Your task to perform on an android device: Open the calendar app, open the side menu, and click the "Day" option Image 0: 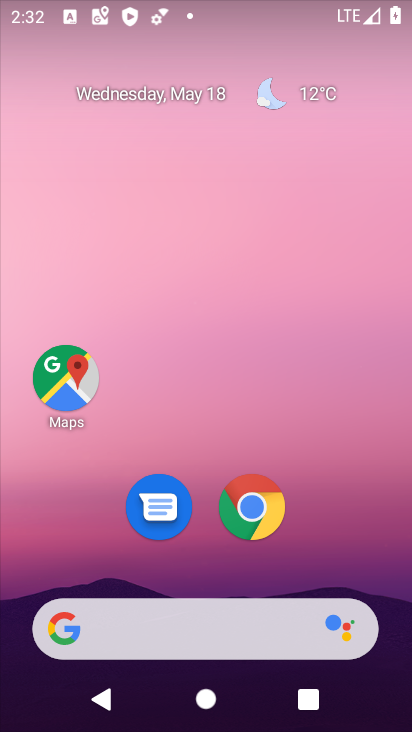
Step 0: click (66, 380)
Your task to perform on an android device: Open the calendar app, open the side menu, and click the "Day" option Image 1: 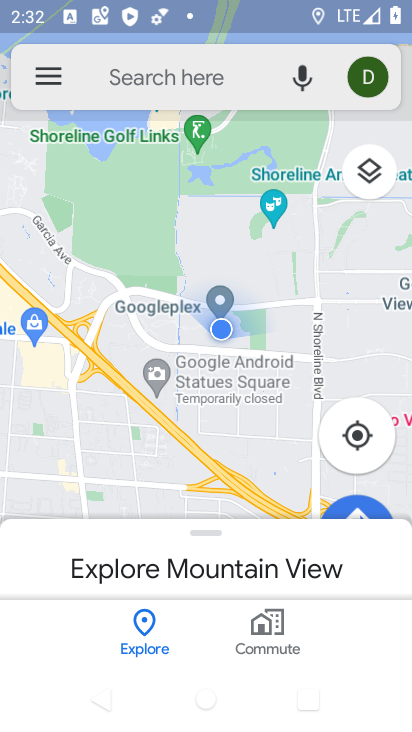
Step 1: press home button
Your task to perform on an android device: Open the calendar app, open the side menu, and click the "Day" option Image 2: 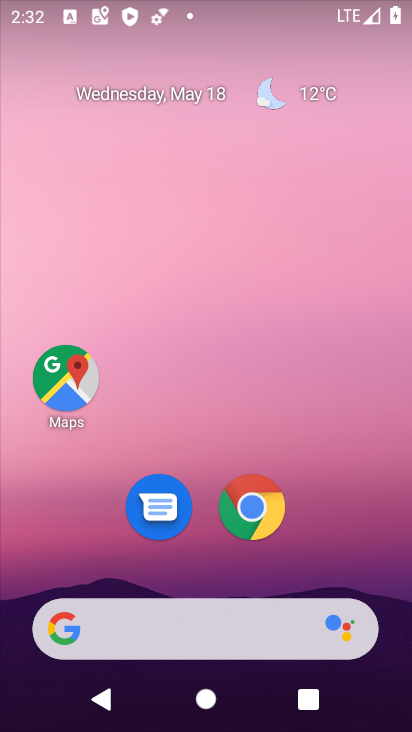
Step 2: drag from (375, 546) to (364, 93)
Your task to perform on an android device: Open the calendar app, open the side menu, and click the "Day" option Image 3: 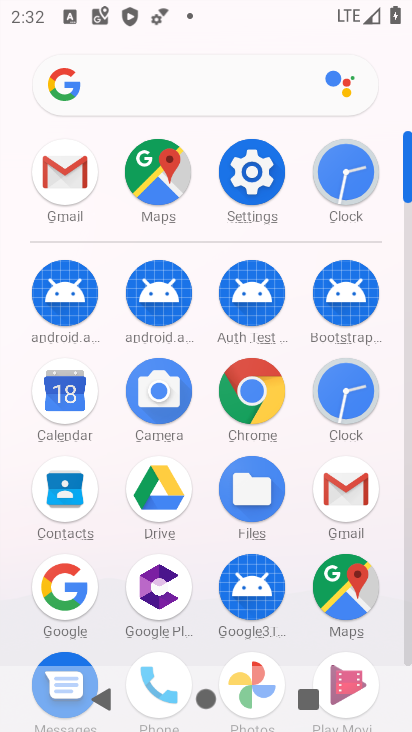
Step 3: click (63, 392)
Your task to perform on an android device: Open the calendar app, open the side menu, and click the "Day" option Image 4: 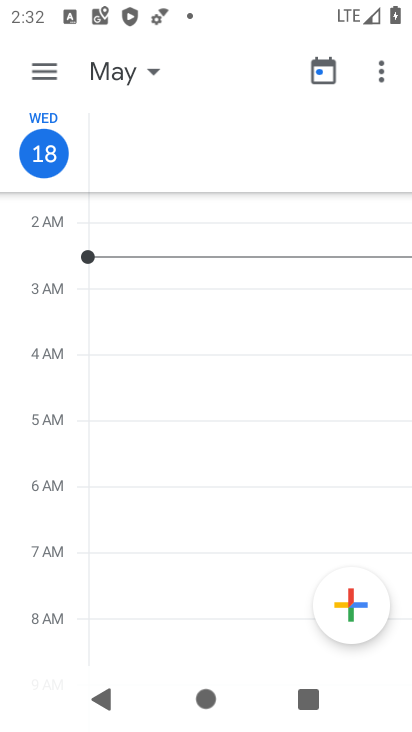
Step 4: click (34, 61)
Your task to perform on an android device: Open the calendar app, open the side menu, and click the "Day" option Image 5: 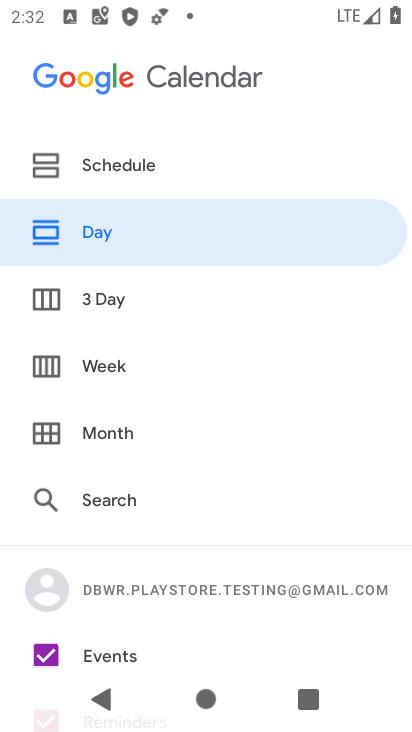
Step 5: click (102, 235)
Your task to perform on an android device: Open the calendar app, open the side menu, and click the "Day" option Image 6: 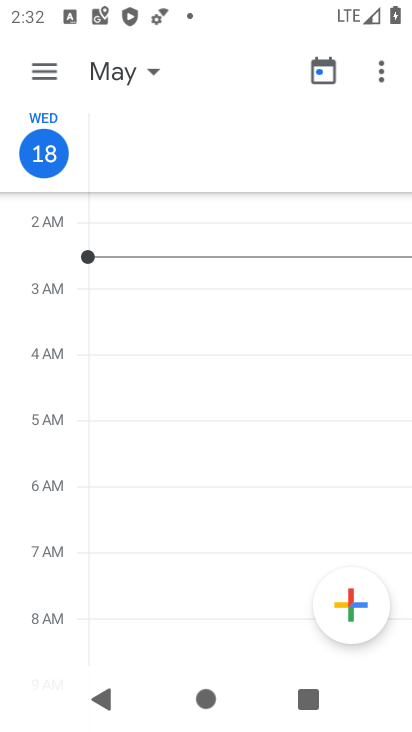
Step 6: task complete